Your task to perform on an android device: open sync settings in chrome Image 0: 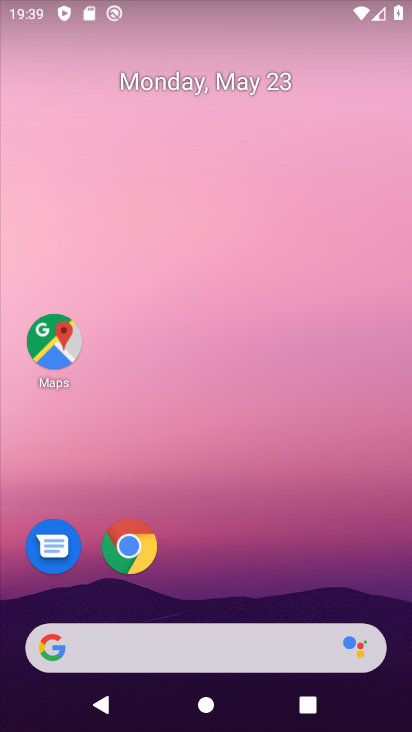
Step 0: drag from (370, 599) to (381, 174)
Your task to perform on an android device: open sync settings in chrome Image 1: 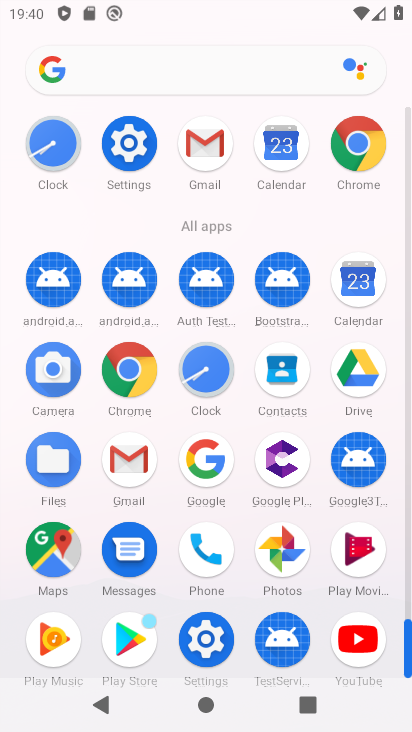
Step 1: click (125, 371)
Your task to perform on an android device: open sync settings in chrome Image 2: 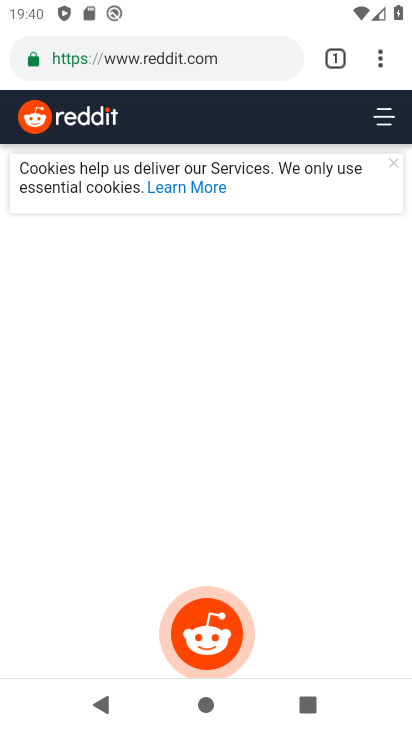
Step 2: click (382, 62)
Your task to perform on an android device: open sync settings in chrome Image 3: 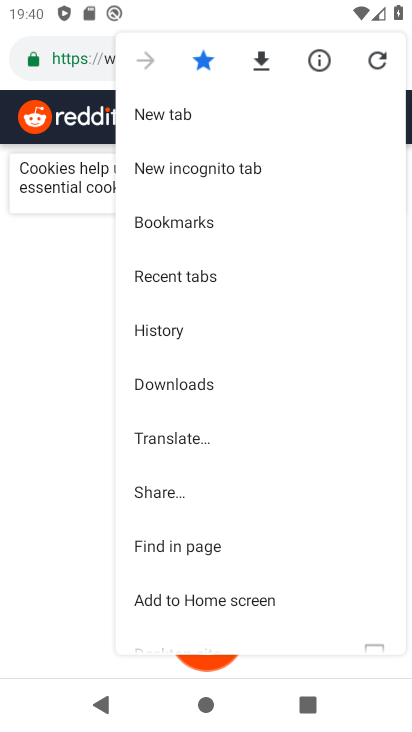
Step 3: drag from (344, 565) to (344, 415)
Your task to perform on an android device: open sync settings in chrome Image 4: 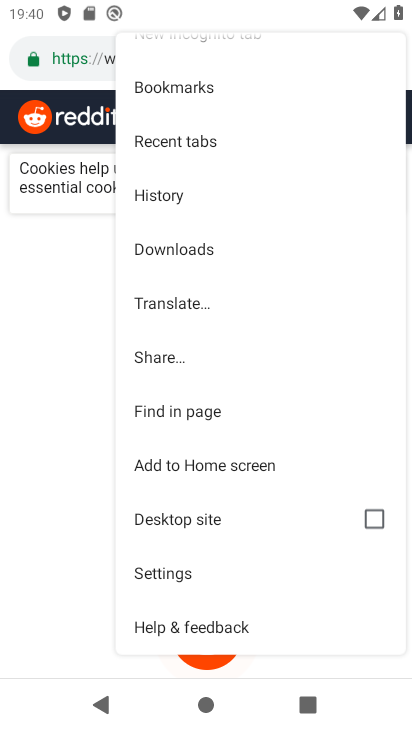
Step 4: drag from (321, 582) to (327, 424)
Your task to perform on an android device: open sync settings in chrome Image 5: 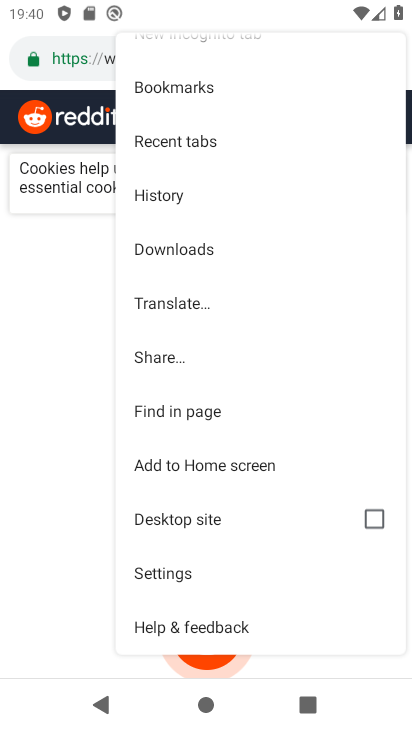
Step 5: click (177, 576)
Your task to perform on an android device: open sync settings in chrome Image 6: 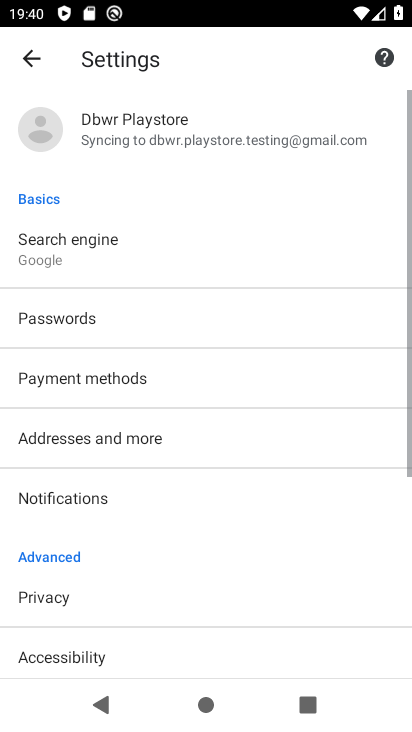
Step 6: drag from (310, 597) to (304, 471)
Your task to perform on an android device: open sync settings in chrome Image 7: 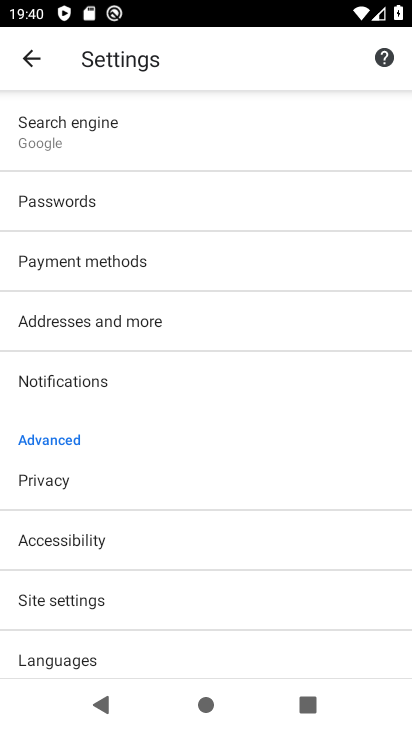
Step 7: drag from (331, 594) to (332, 521)
Your task to perform on an android device: open sync settings in chrome Image 8: 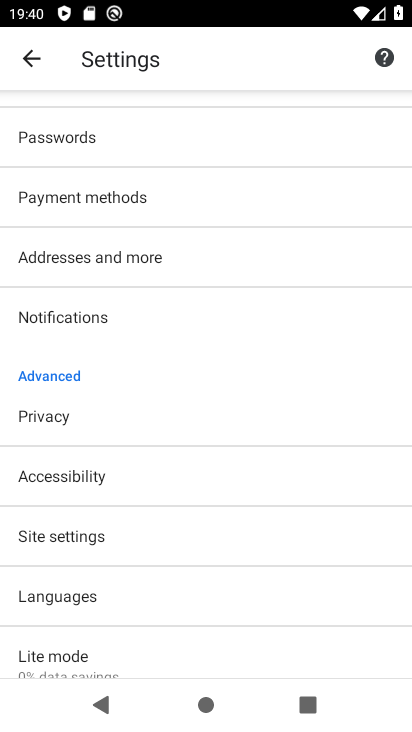
Step 8: drag from (342, 637) to (340, 552)
Your task to perform on an android device: open sync settings in chrome Image 9: 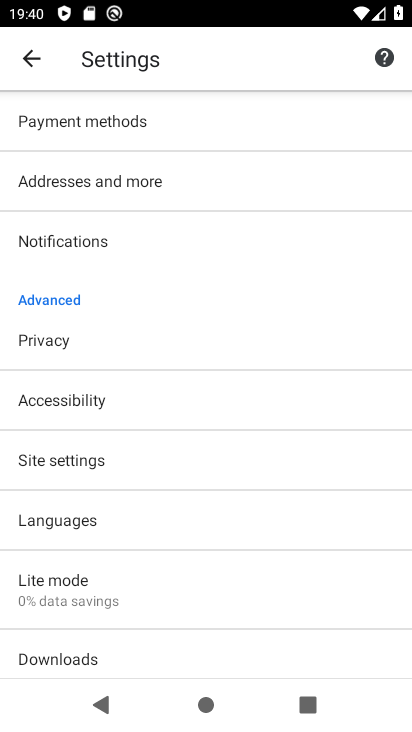
Step 9: drag from (345, 640) to (345, 553)
Your task to perform on an android device: open sync settings in chrome Image 10: 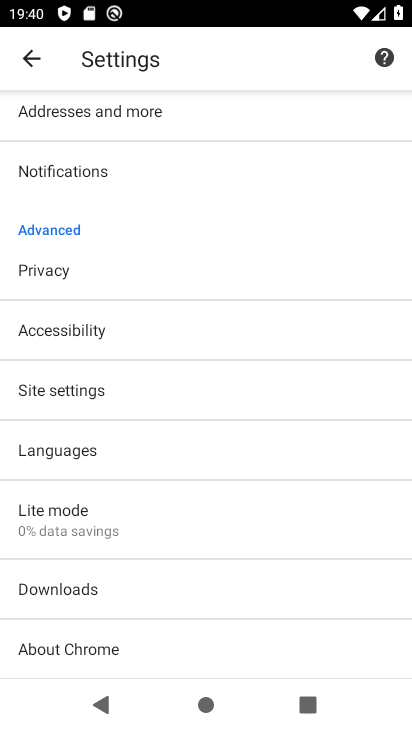
Step 10: drag from (353, 641) to (355, 544)
Your task to perform on an android device: open sync settings in chrome Image 11: 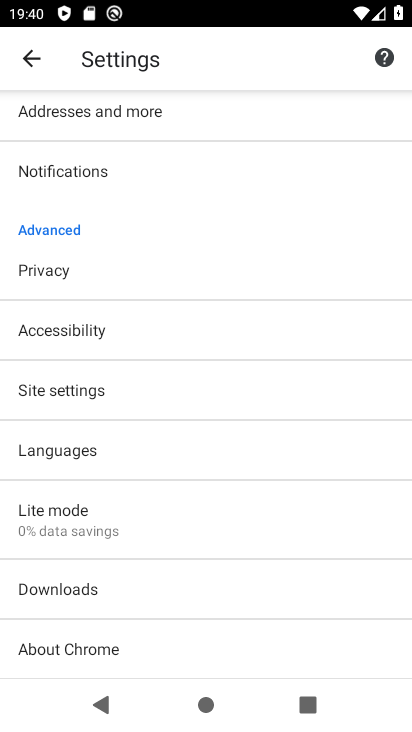
Step 11: drag from (355, 454) to (351, 526)
Your task to perform on an android device: open sync settings in chrome Image 12: 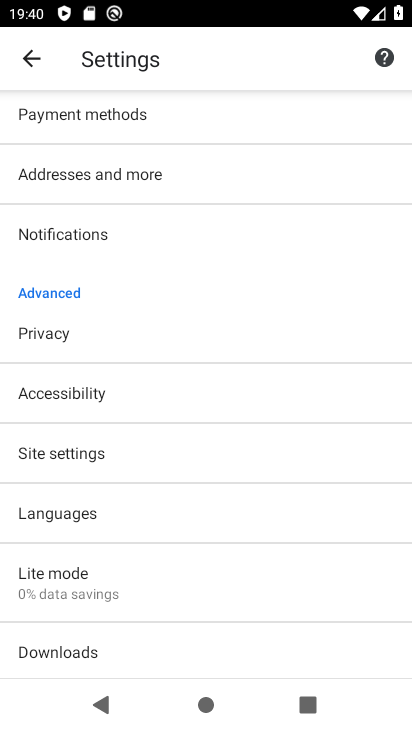
Step 12: drag from (349, 432) to (345, 507)
Your task to perform on an android device: open sync settings in chrome Image 13: 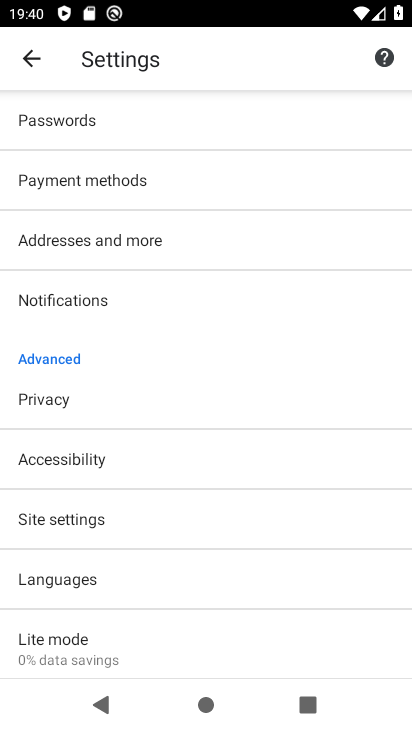
Step 13: click (343, 510)
Your task to perform on an android device: open sync settings in chrome Image 14: 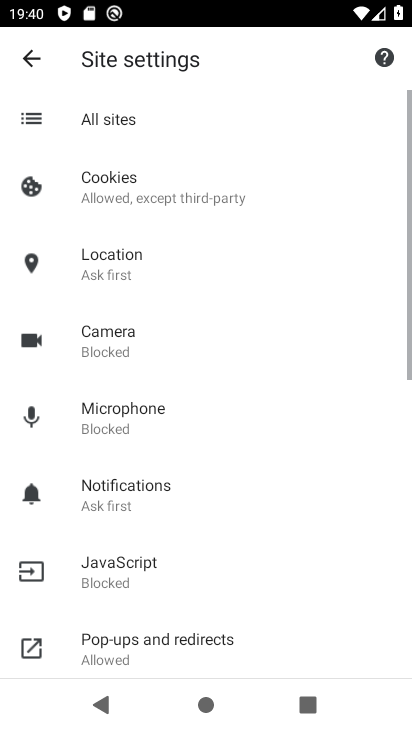
Step 14: drag from (342, 557) to (346, 505)
Your task to perform on an android device: open sync settings in chrome Image 15: 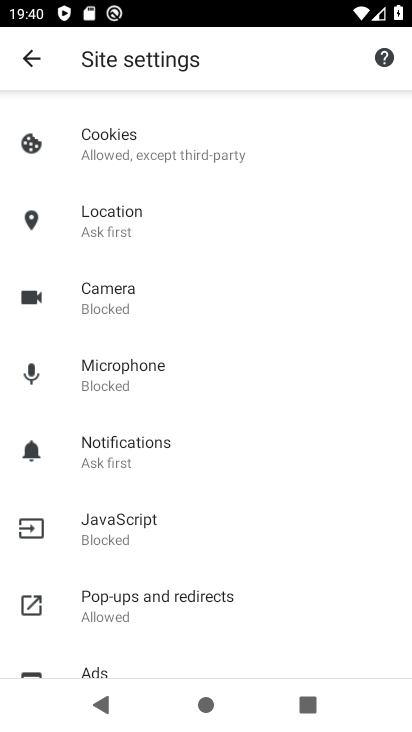
Step 15: drag from (356, 567) to (355, 507)
Your task to perform on an android device: open sync settings in chrome Image 16: 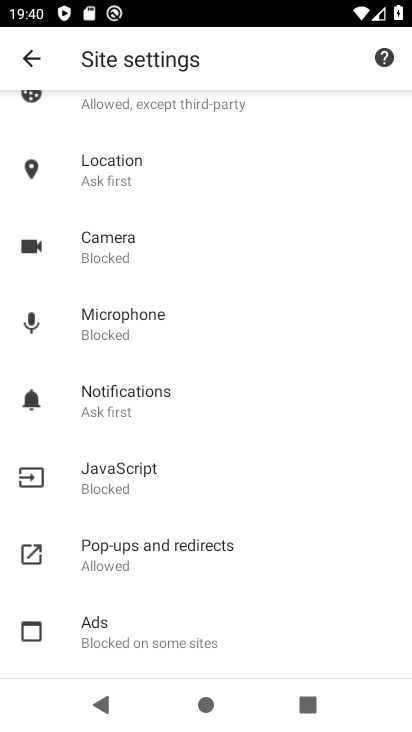
Step 16: drag from (358, 596) to (352, 532)
Your task to perform on an android device: open sync settings in chrome Image 17: 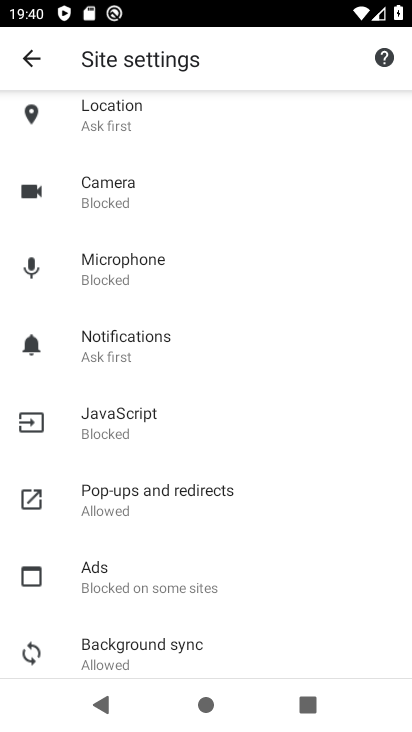
Step 17: drag from (351, 597) to (353, 527)
Your task to perform on an android device: open sync settings in chrome Image 18: 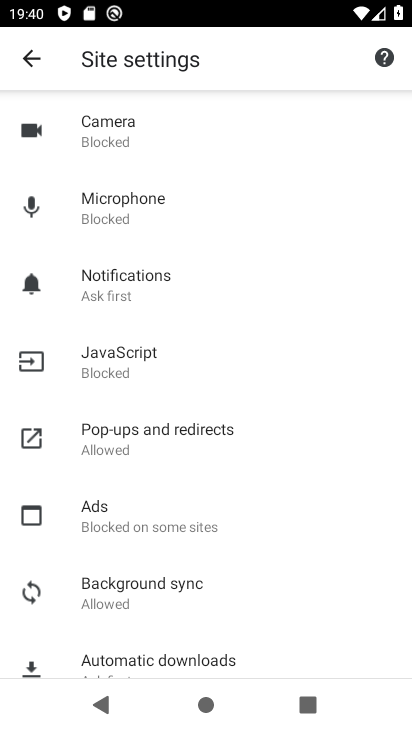
Step 18: drag from (358, 592) to (358, 526)
Your task to perform on an android device: open sync settings in chrome Image 19: 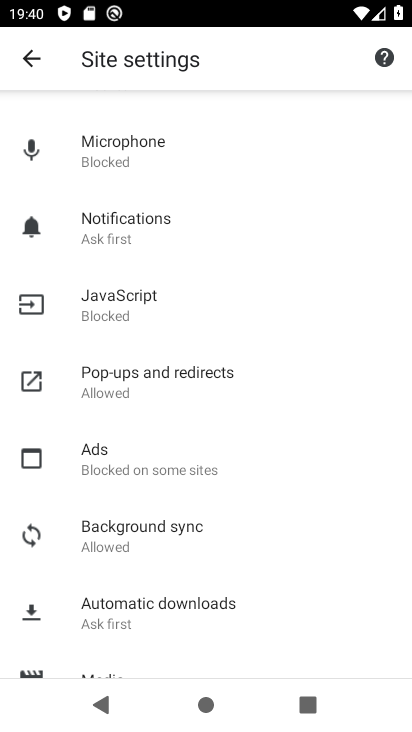
Step 19: drag from (351, 604) to (352, 541)
Your task to perform on an android device: open sync settings in chrome Image 20: 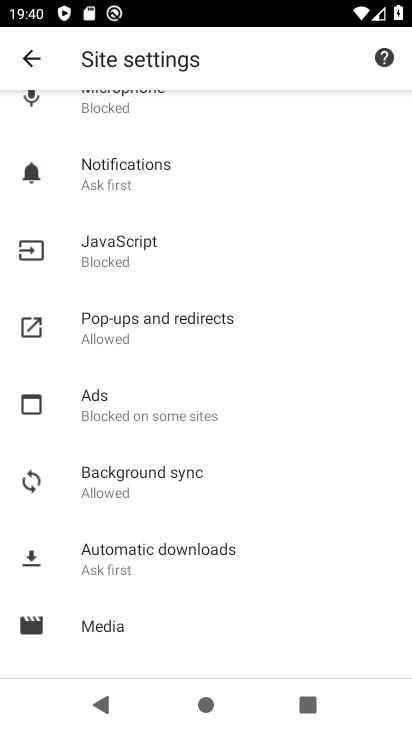
Step 20: click (223, 495)
Your task to perform on an android device: open sync settings in chrome Image 21: 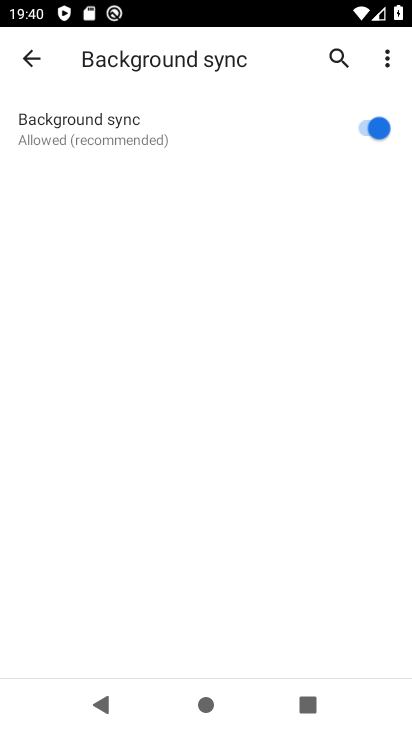
Step 21: task complete